Your task to perform on an android device: Go to network settings Image 0: 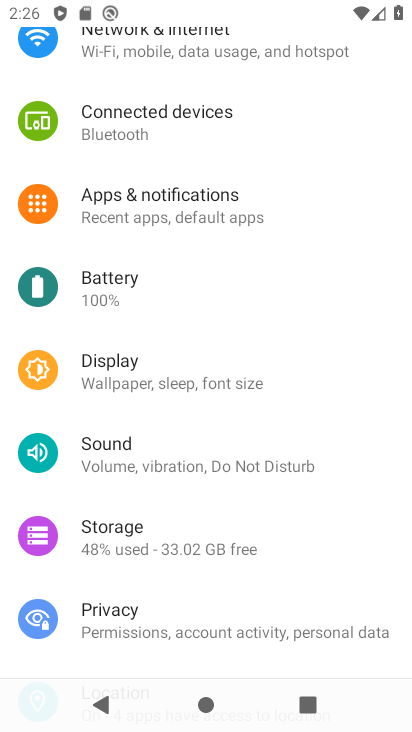
Step 0: press home button
Your task to perform on an android device: Go to network settings Image 1: 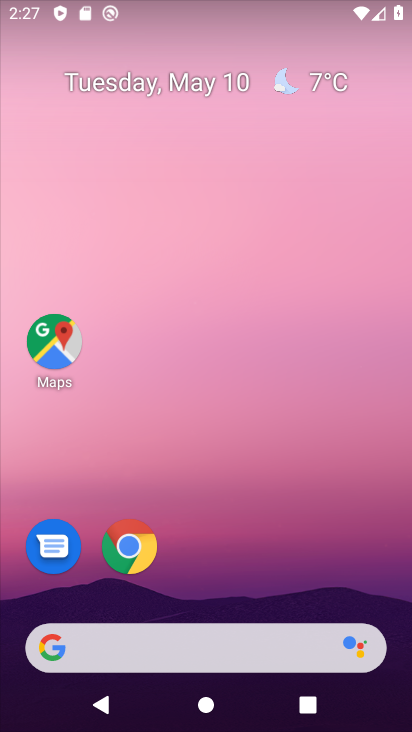
Step 1: drag from (251, 565) to (276, 136)
Your task to perform on an android device: Go to network settings Image 2: 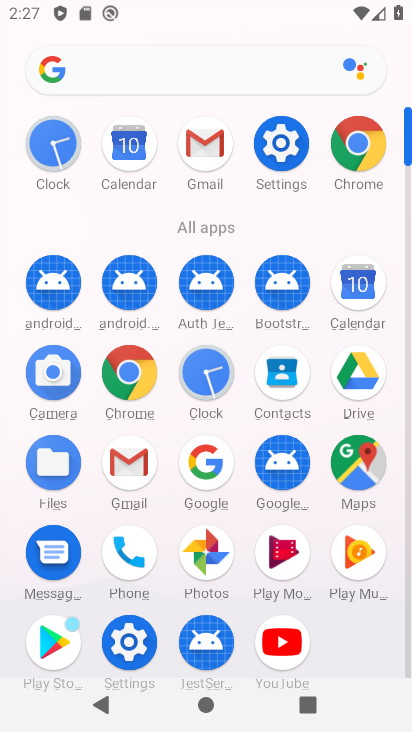
Step 2: click (287, 161)
Your task to perform on an android device: Go to network settings Image 3: 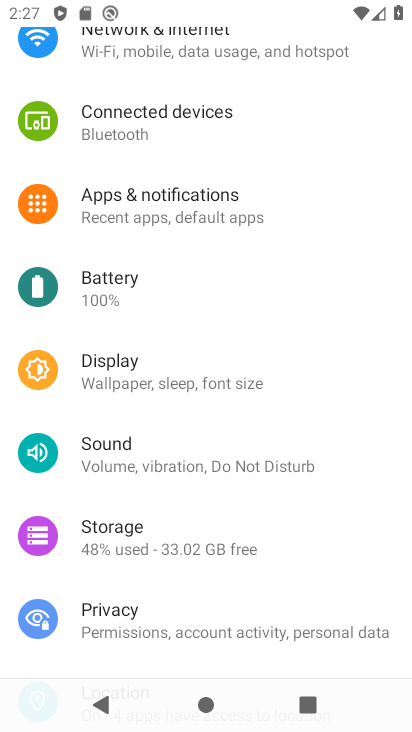
Step 3: click (224, 60)
Your task to perform on an android device: Go to network settings Image 4: 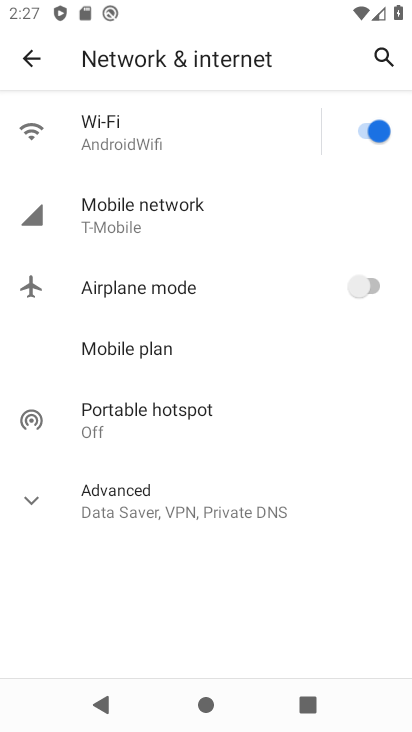
Step 4: task complete